Your task to perform on an android device: Open settings on Google Maps Image 0: 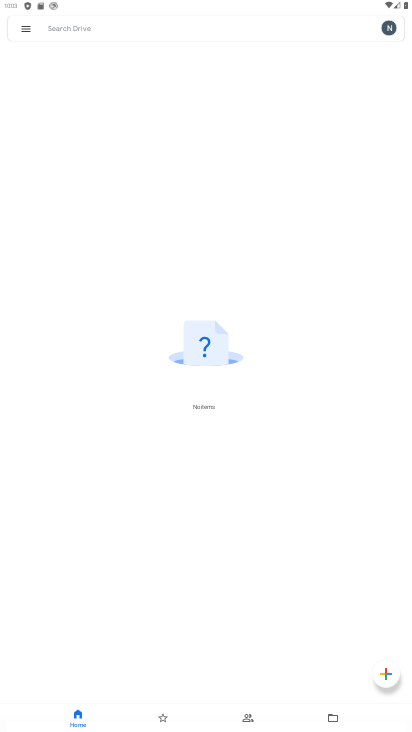
Step 0: press home button
Your task to perform on an android device: Open settings on Google Maps Image 1: 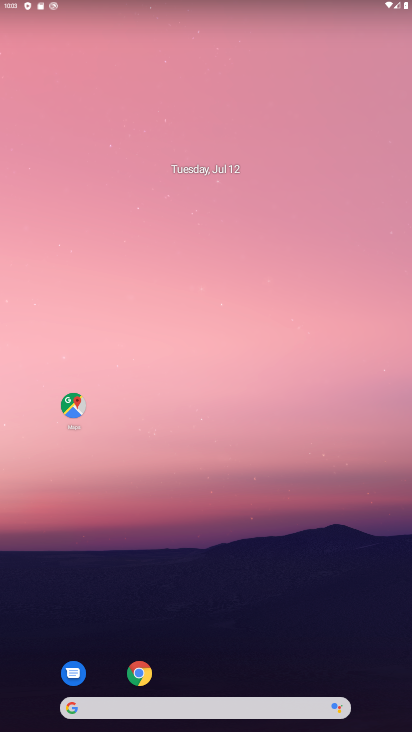
Step 1: drag from (288, 582) to (241, 161)
Your task to perform on an android device: Open settings on Google Maps Image 2: 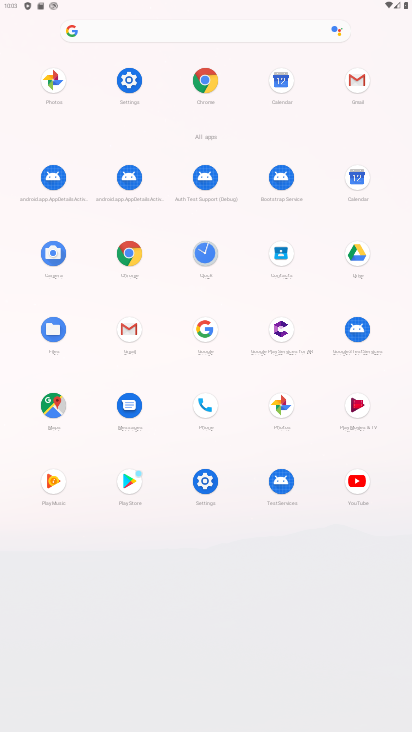
Step 2: click (54, 408)
Your task to perform on an android device: Open settings on Google Maps Image 3: 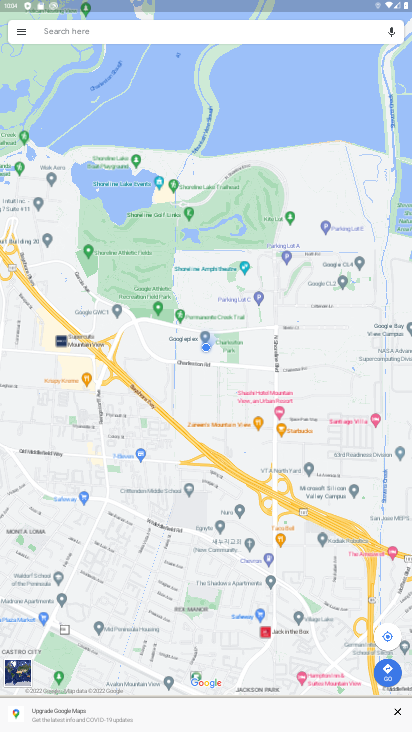
Step 3: click (22, 26)
Your task to perform on an android device: Open settings on Google Maps Image 4: 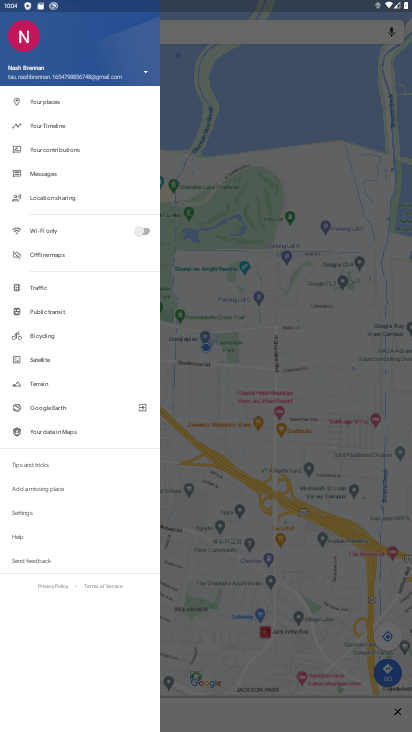
Step 4: click (26, 510)
Your task to perform on an android device: Open settings on Google Maps Image 5: 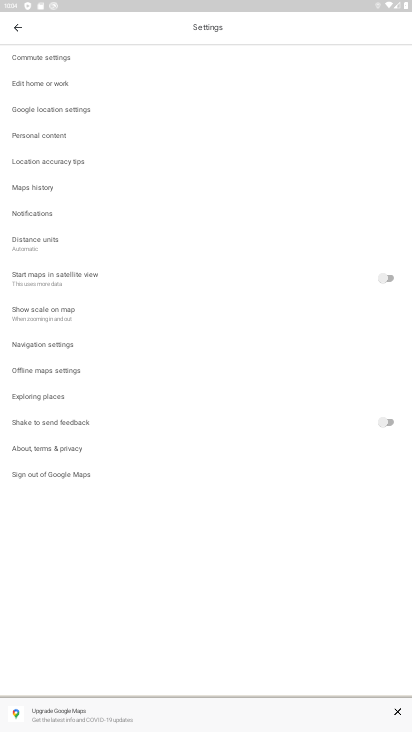
Step 5: task complete